Your task to perform on an android device: Do I have any events this weekend? Image 0: 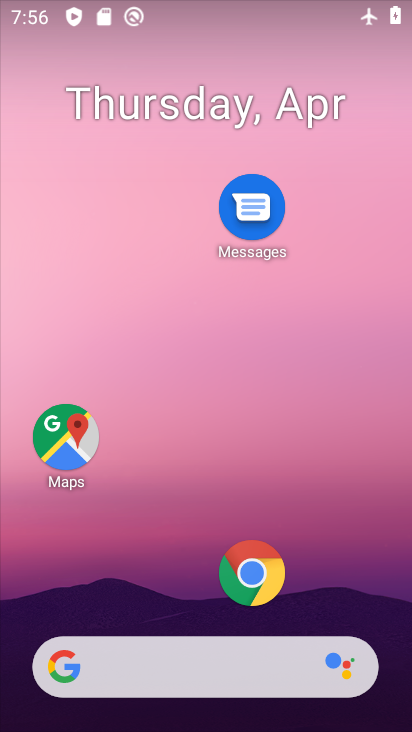
Step 0: drag from (193, 622) to (181, 14)
Your task to perform on an android device: Do I have any events this weekend? Image 1: 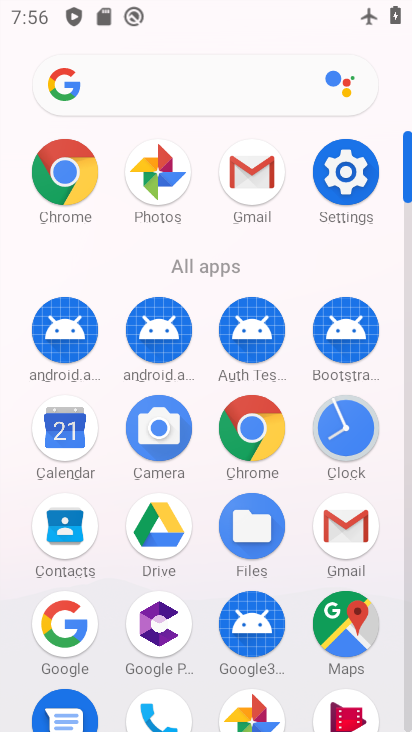
Step 1: click (63, 421)
Your task to perform on an android device: Do I have any events this weekend? Image 2: 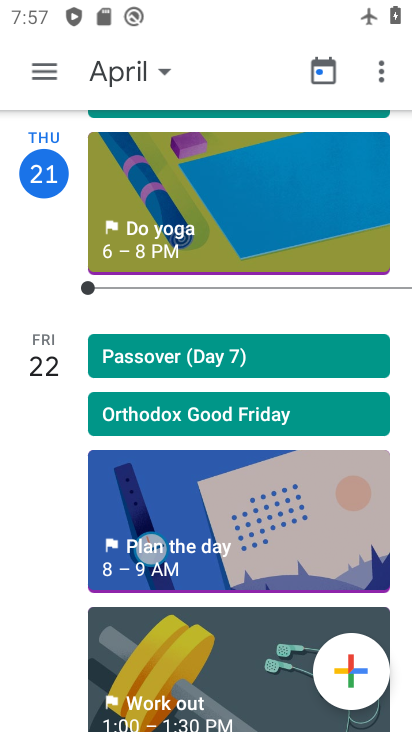
Step 2: click (47, 64)
Your task to perform on an android device: Do I have any events this weekend? Image 3: 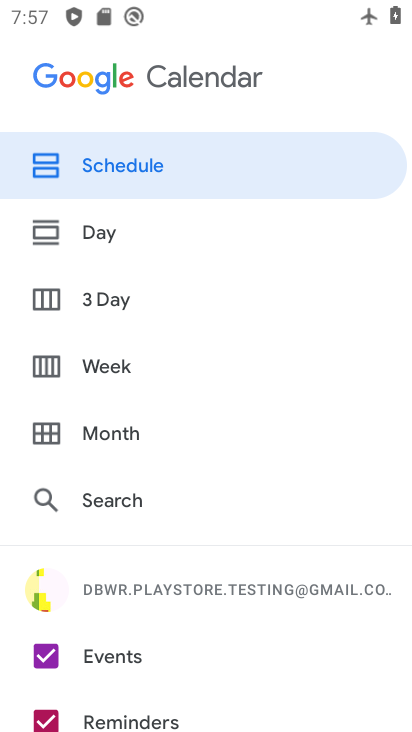
Step 3: drag from (146, 614) to (166, 208)
Your task to perform on an android device: Do I have any events this weekend? Image 4: 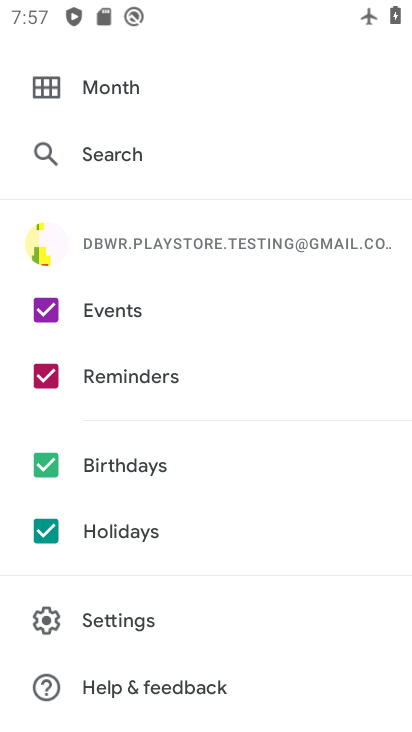
Step 4: click (48, 374)
Your task to perform on an android device: Do I have any events this weekend? Image 5: 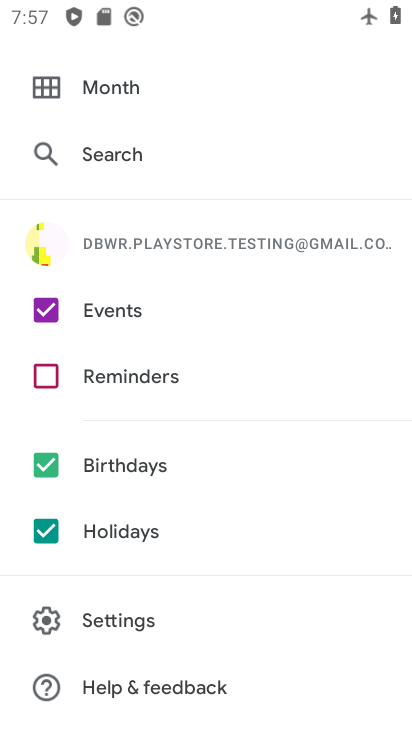
Step 5: click (47, 467)
Your task to perform on an android device: Do I have any events this weekend? Image 6: 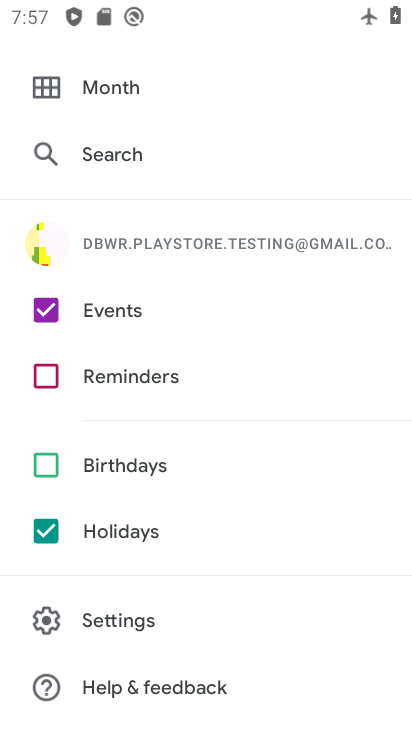
Step 6: click (51, 537)
Your task to perform on an android device: Do I have any events this weekend? Image 7: 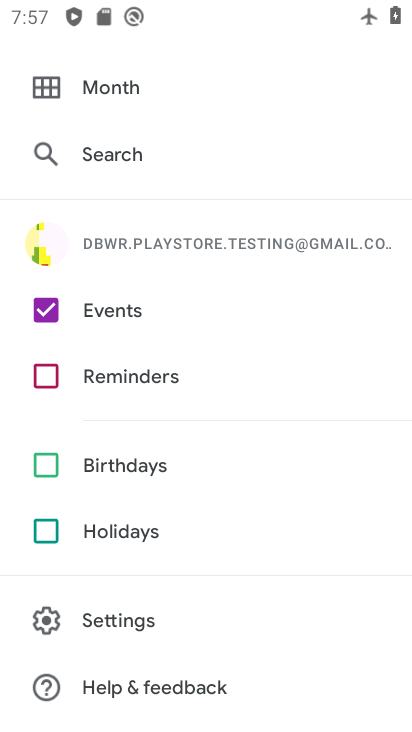
Step 7: drag from (146, 315) to (174, 665)
Your task to perform on an android device: Do I have any events this weekend? Image 8: 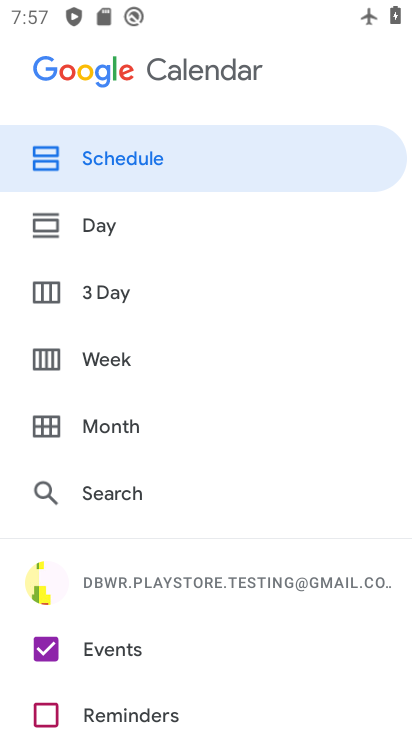
Step 8: click (67, 354)
Your task to perform on an android device: Do I have any events this weekend? Image 9: 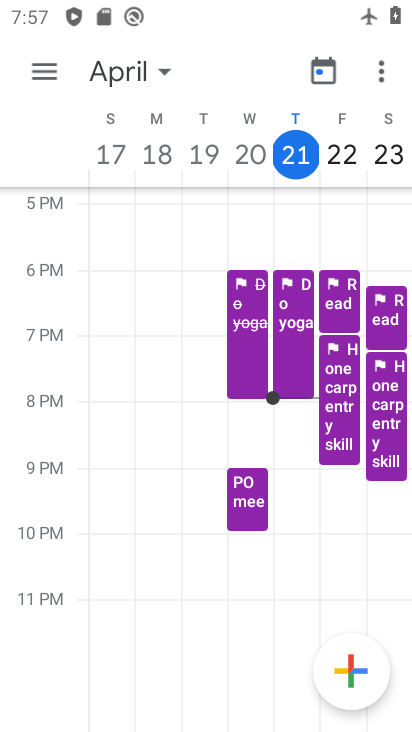
Step 9: click (300, 154)
Your task to perform on an android device: Do I have any events this weekend? Image 10: 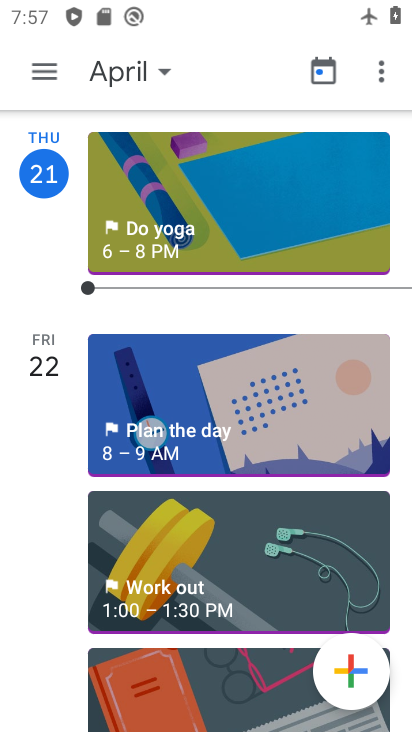
Step 10: task complete